Your task to perform on an android device: Open Yahoo.com Image 0: 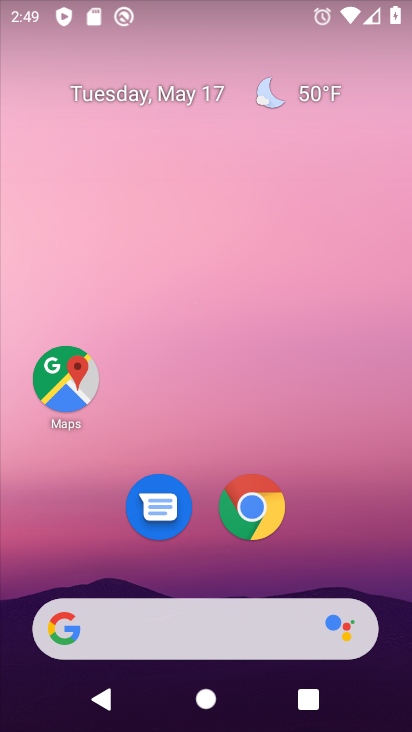
Step 0: click (275, 516)
Your task to perform on an android device: Open Yahoo.com Image 1: 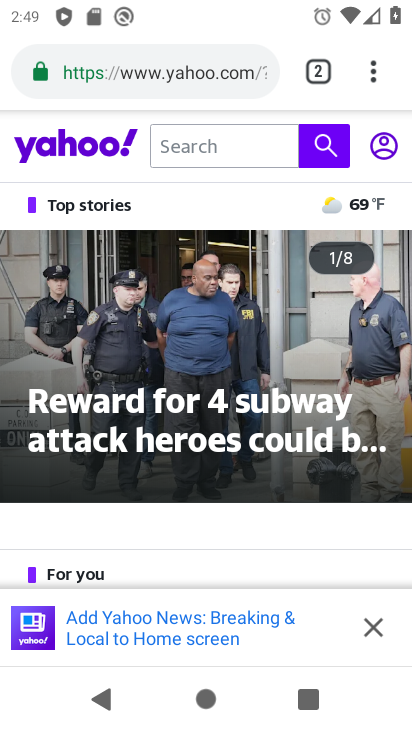
Step 1: task complete